Your task to perform on an android device: What's the weather going to be tomorrow? Image 0: 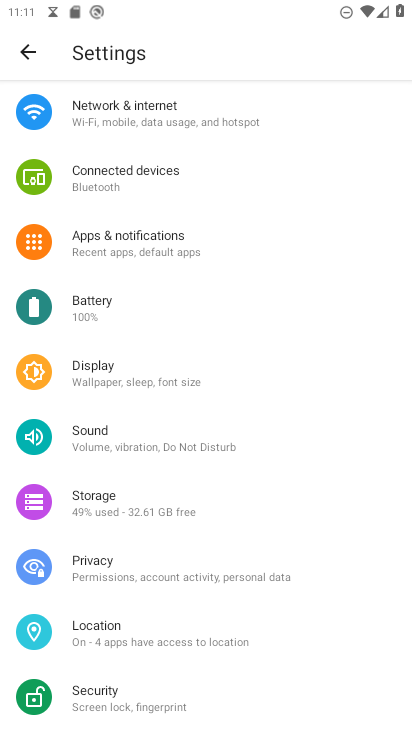
Step 0: press home button
Your task to perform on an android device: What's the weather going to be tomorrow? Image 1: 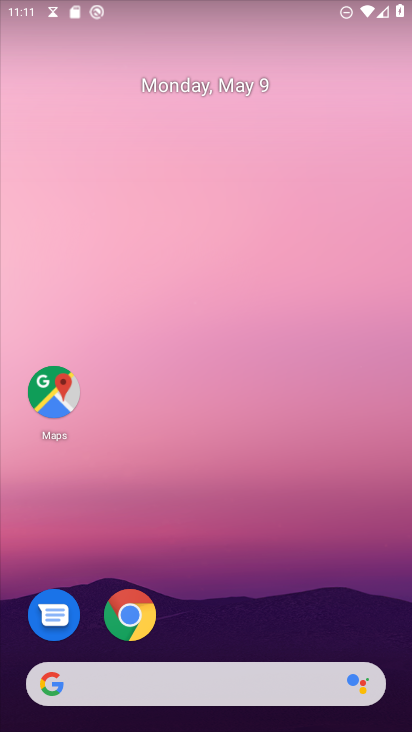
Step 1: drag from (224, 715) to (220, 313)
Your task to perform on an android device: What's the weather going to be tomorrow? Image 2: 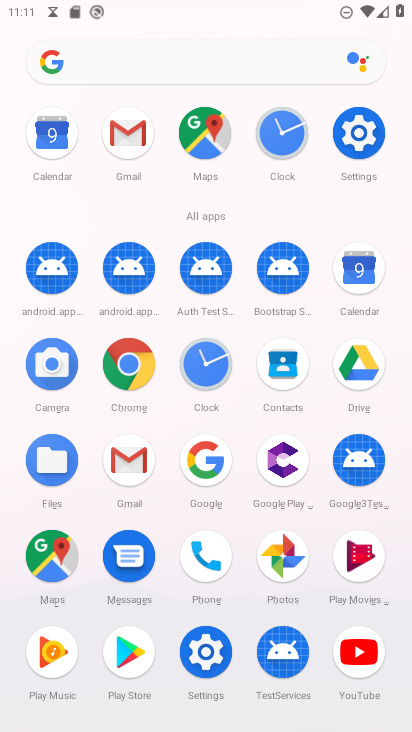
Step 2: click (211, 460)
Your task to perform on an android device: What's the weather going to be tomorrow? Image 3: 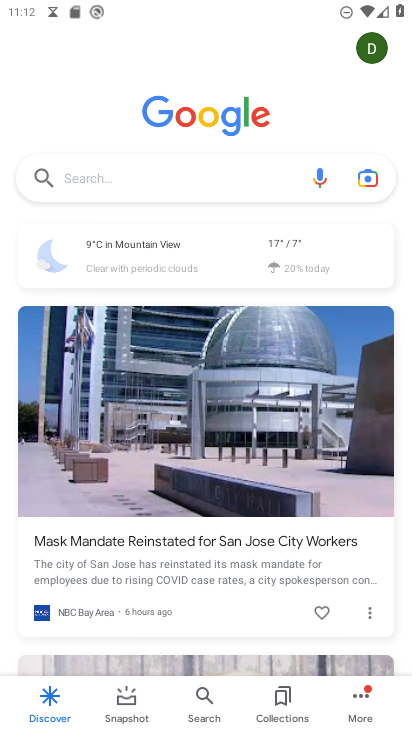
Step 3: click (108, 243)
Your task to perform on an android device: What's the weather going to be tomorrow? Image 4: 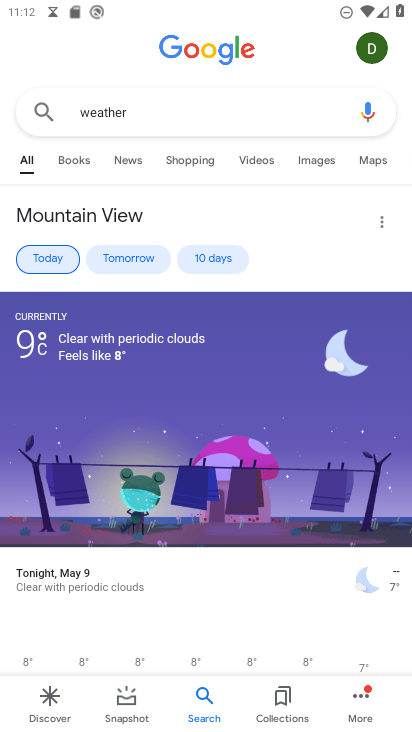
Step 4: click (118, 257)
Your task to perform on an android device: What's the weather going to be tomorrow? Image 5: 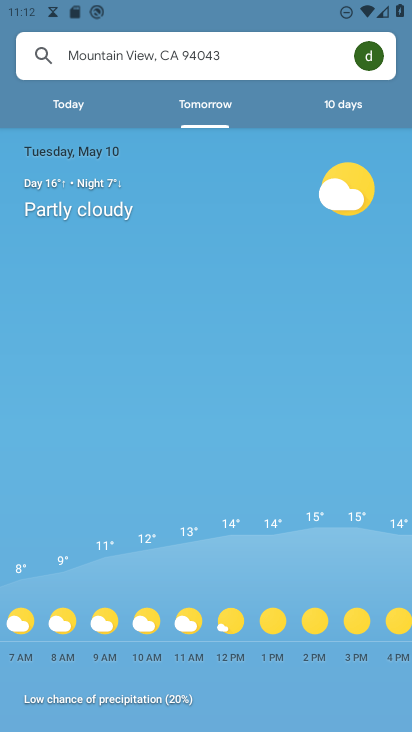
Step 5: task complete